Your task to perform on an android device: turn off priority inbox in the gmail app Image 0: 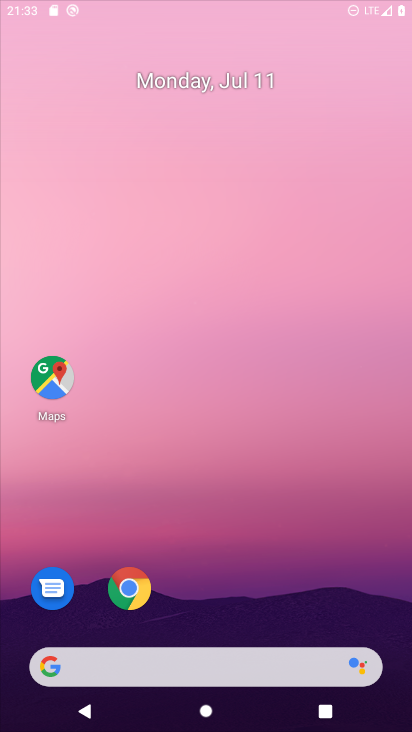
Step 0: press home button
Your task to perform on an android device: turn off priority inbox in the gmail app Image 1: 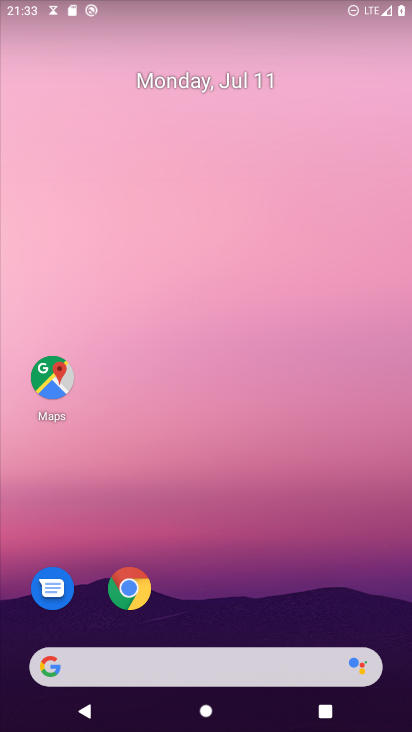
Step 1: drag from (239, 619) to (254, 285)
Your task to perform on an android device: turn off priority inbox in the gmail app Image 2: 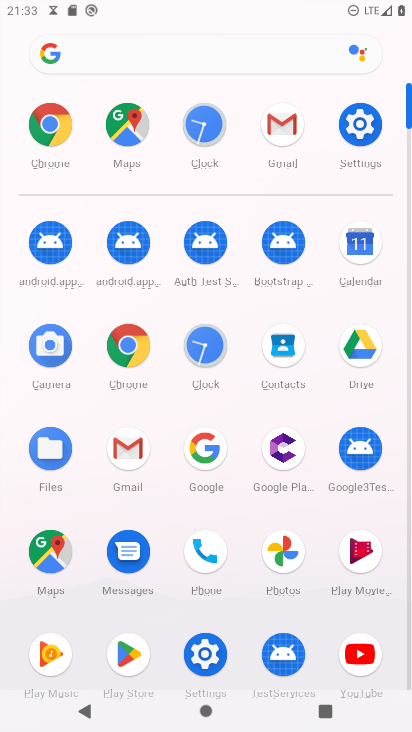
Step 2: click (279, 124)
Your task to perform on an android device: turn off priority inbox in the gmail app Image 3: 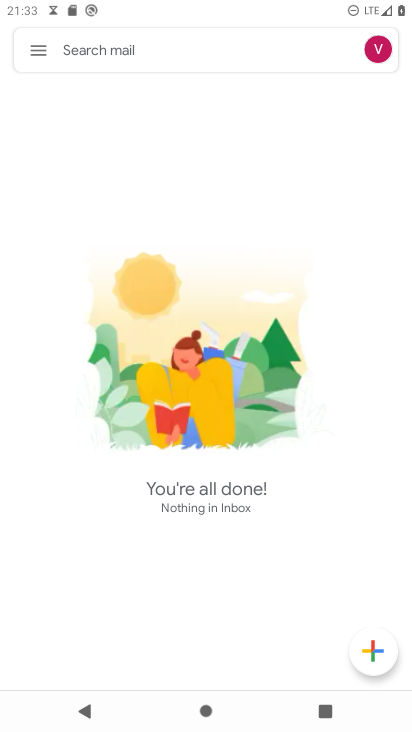
Step 3: click (37, 55)
Your task to perform on an android device: turn off priority inbox in the gmail app Image 4: 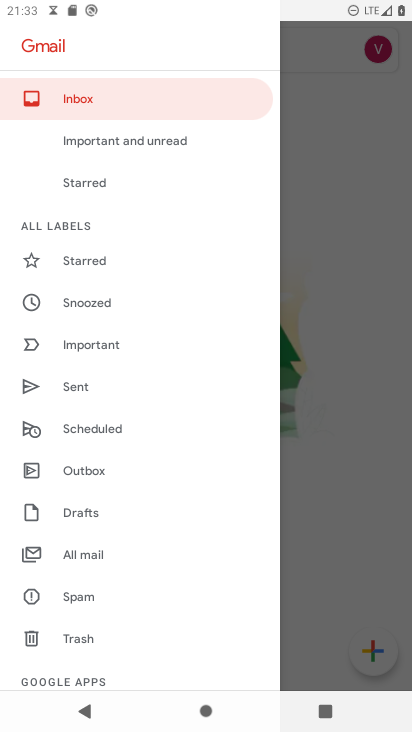
Step 4: drag from (220, 527) to (212, 30)
Your task to perform on an android device: turn off priority inbox in the gmail app Image 5: 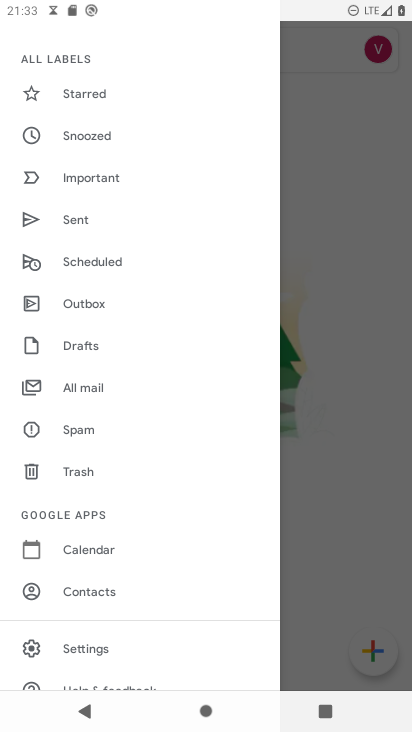
Step 5: click (86, 649)
Your task to perform on an android device: turn off priority inbox in the gmail app Image 6: 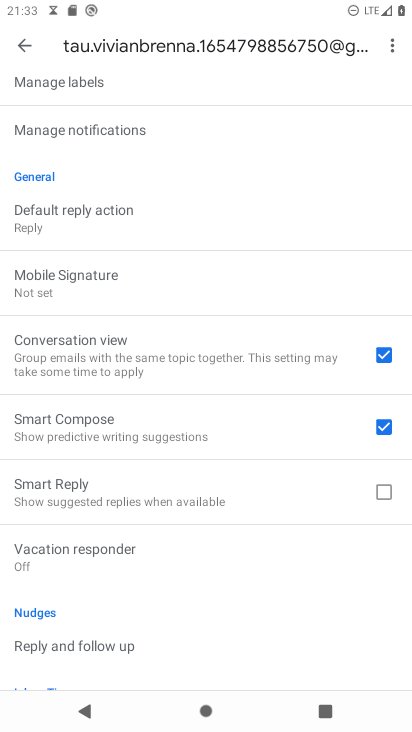
Step 6: drag from (247, 218) to (288, 687)
Your task to perform on an android device: turn off priority inbox in the gmail app Image 7: 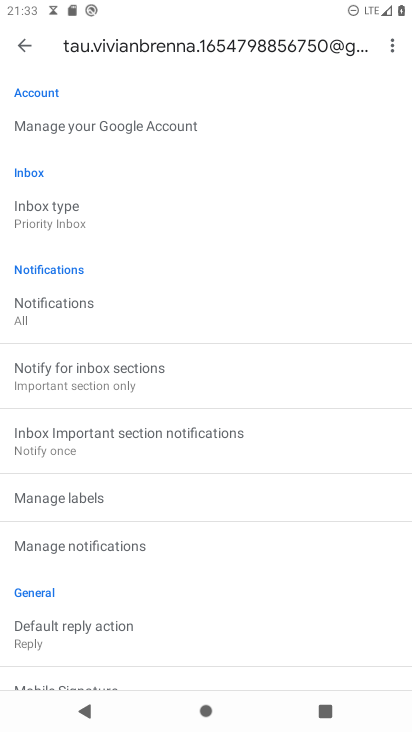
Step 7: click (57, 209)
Your task to perform on an android device: turn off priority inbox in the gmail app Image 8: 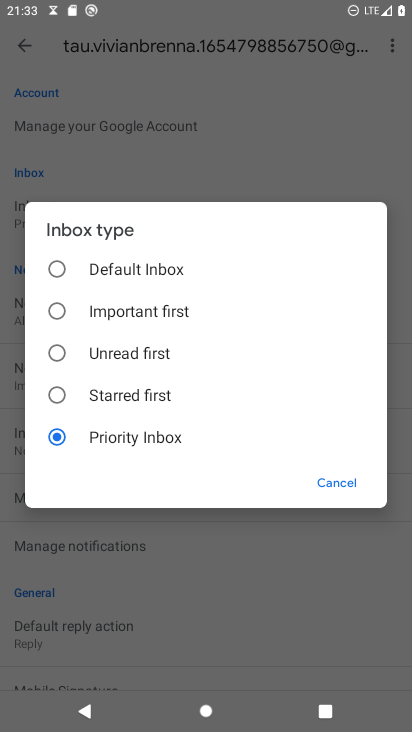
Step 8: click (49, 266)
Your task to perform on an android device: turn off priority inbox in the gmail app Image 9: 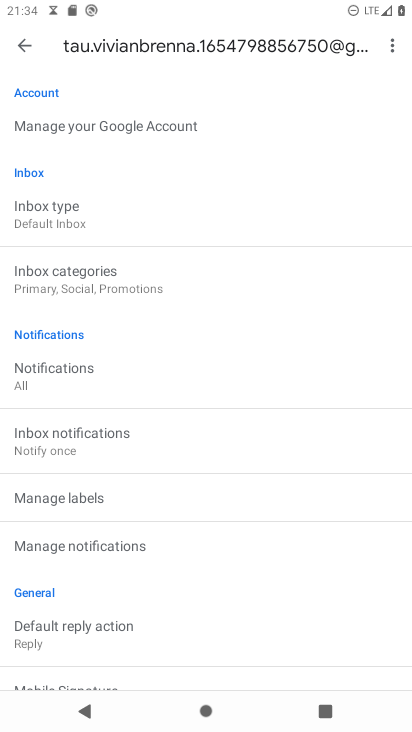
Step 9: task complete